Your task to perform on an android device: Open settings Image 0: 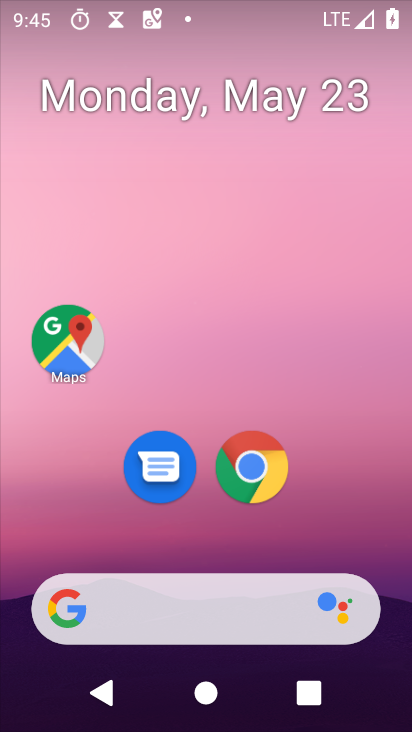
Step 0: drag from (215, 200) to (183, 0)
Your task to perform on an android device: Open settings Image 1: 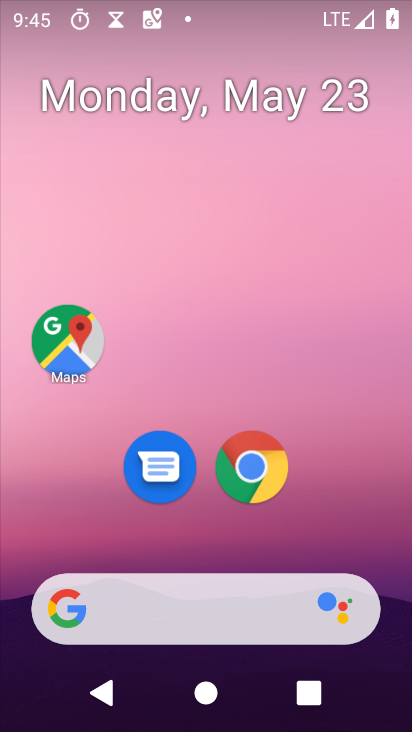
Step 1: drag from (101, 416) to (104, 4)
Your task to perform on an android device: Open settings Image 2: 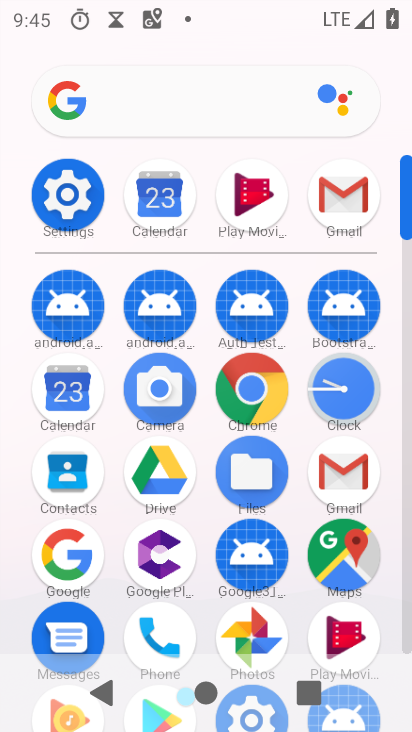
Step 2: click (70, 176)
Your task to perform on an android device: Open settings Image 3: 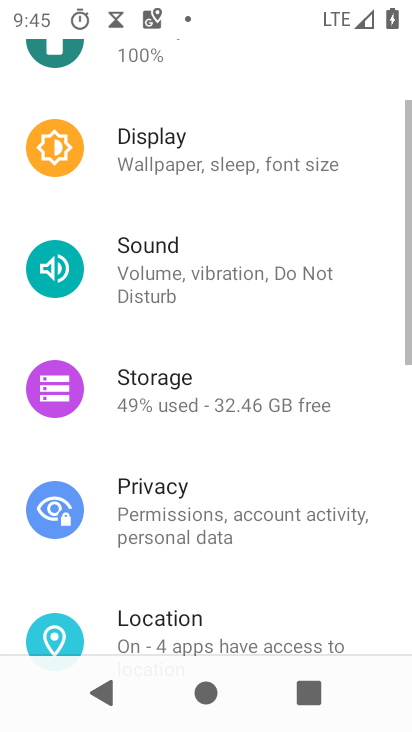
Step 3: task complete